Your task to perform on an android device: Search for pizza restaurants on Maps Image 0: 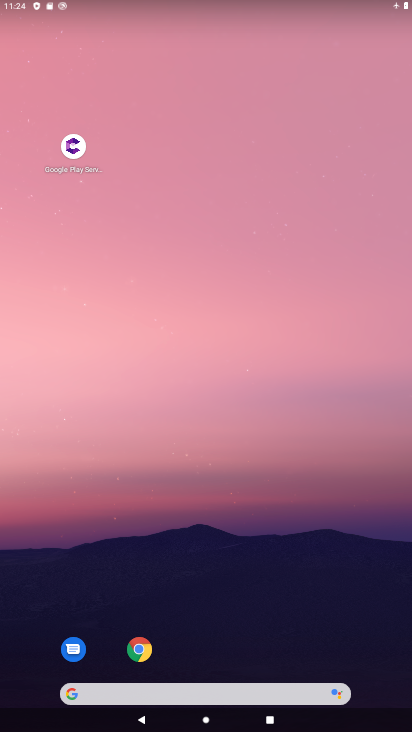
Step 0: drag from (241, 614) to (211, 163)
Your task to perform on an android device: Search for pizza restaurants on Maps Image 1: 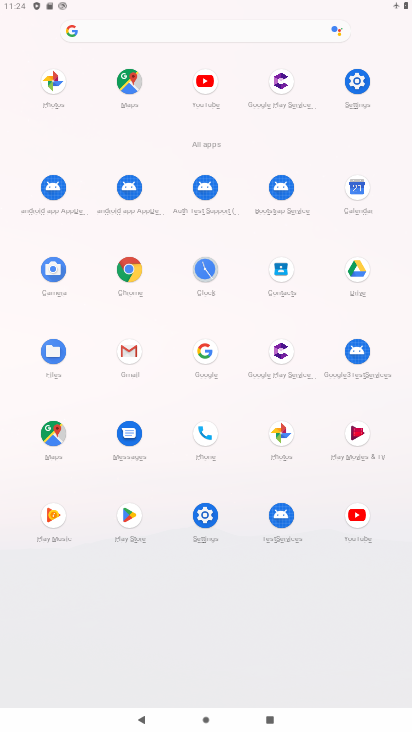
Step 1: click (126, 83)
Your task to perform on an android device: Search for pizza restaurants on Maps Image 2: 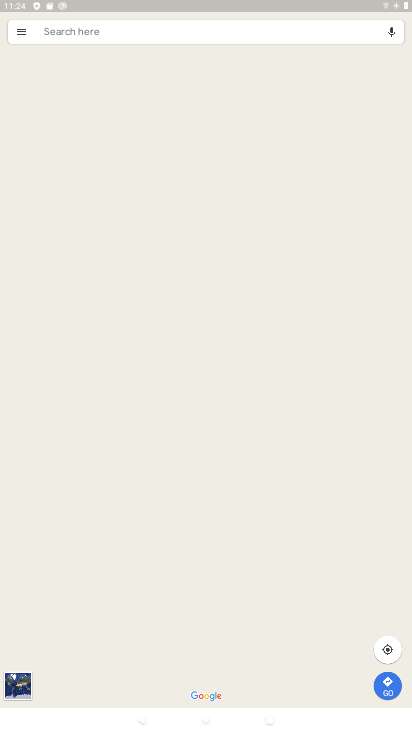
Step 2: click (102, 27)
Your task to perform on an android device: Search for pizza restaurants on Maps Image 3: 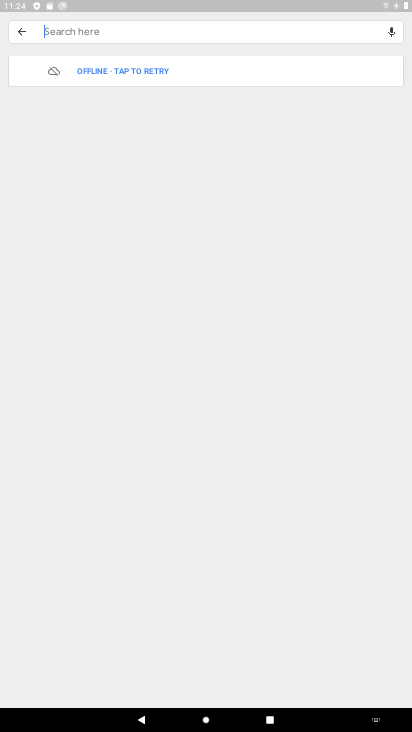
Step 3: type "pizza"
Your task to perform on an android device: Search for pizza restaurants on Maps Image 4: 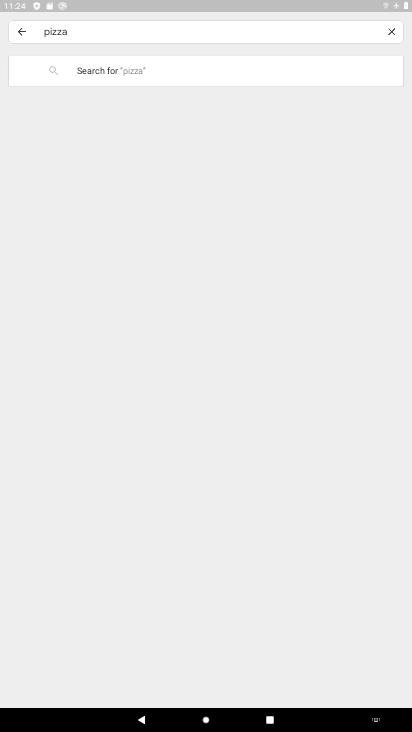
Step 4: click (133, 72)
Your task to perform on an android device: Search for pizza restaurants on Maps Image 5: 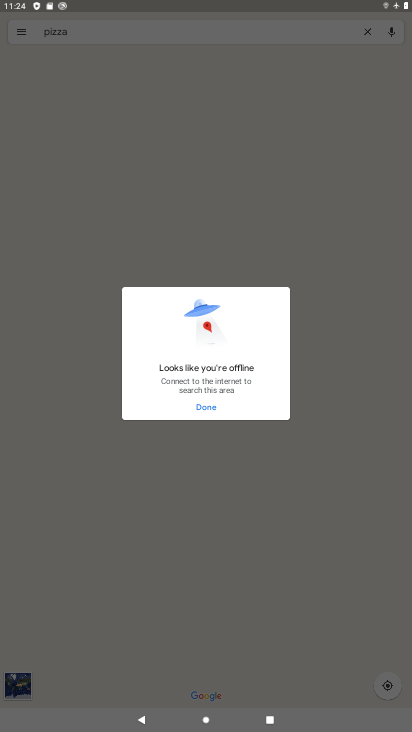
Step 5: click (202, 403)
Your task to perform on an android device: Search for pizza restaurants on Maps Image 6: 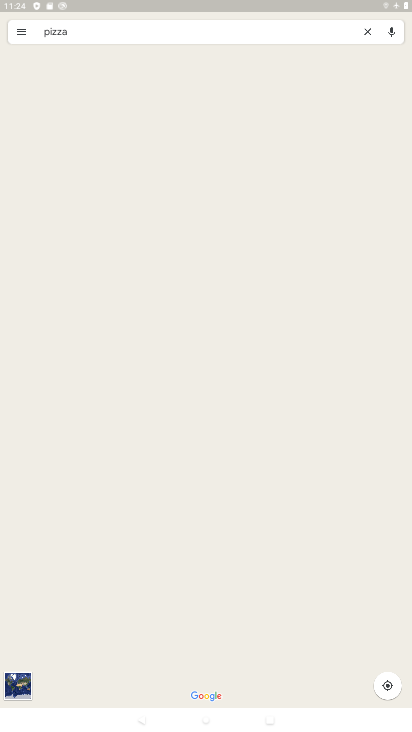
Step 6: task complete